Your task to perform on an android device: allow notifications from all sites in the chrome app Image 0: 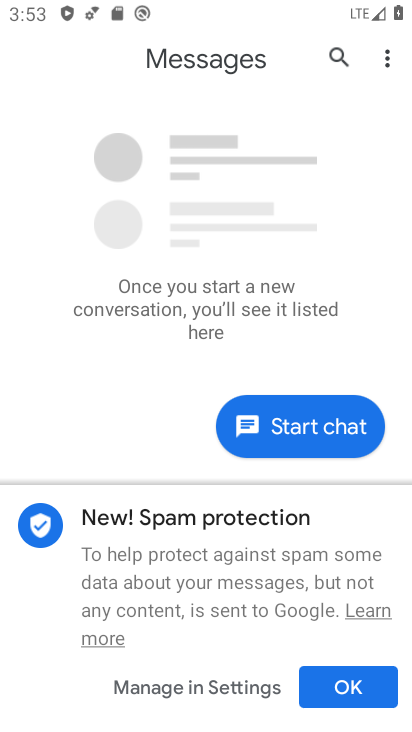
Step 0: press home button
Your task to perform on an android device: allow notifications from all sites in the chrome app Image 1: 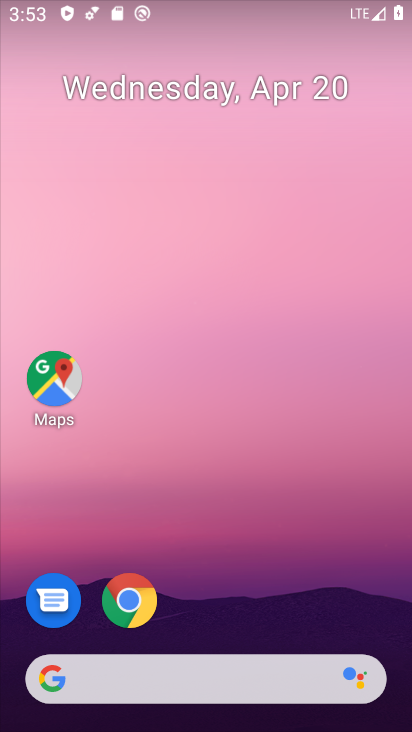
Step 1: click (115, 592)
Your task to perform on an android device: allow notifications from all sites in the chrome app Image 2: 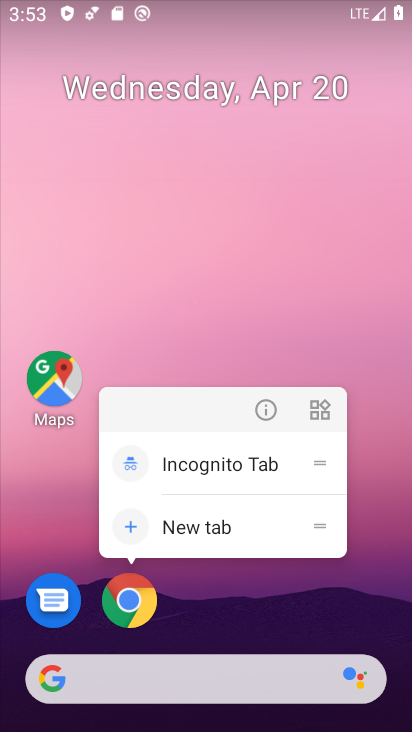
Step 2: click (140, 607)
Your task to perform on an android device: allow notifications from all sites in the chrome app Image 3: 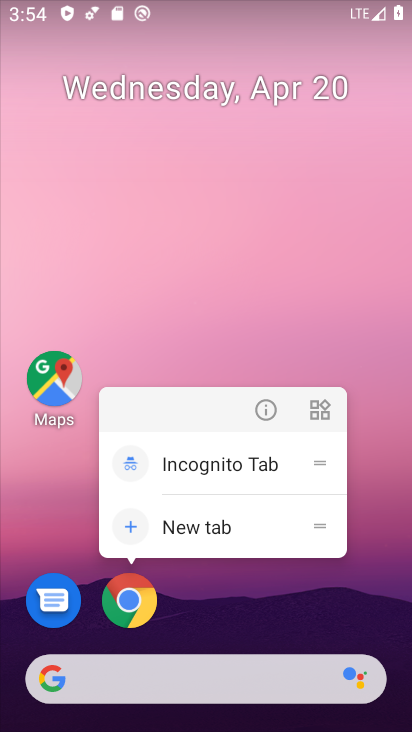
Step 3: click (118, 602)
Your task to perform on an android device: allow notifications from all sites in the chrome app Image 4: 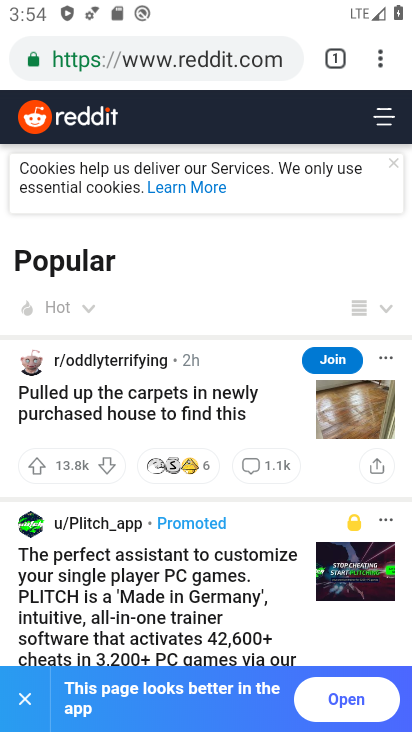
Step 4: drag from (386, 57) to (199, 615)
Your task to perform on an android device: allow notifications from all sites in the chrome app Image 5: 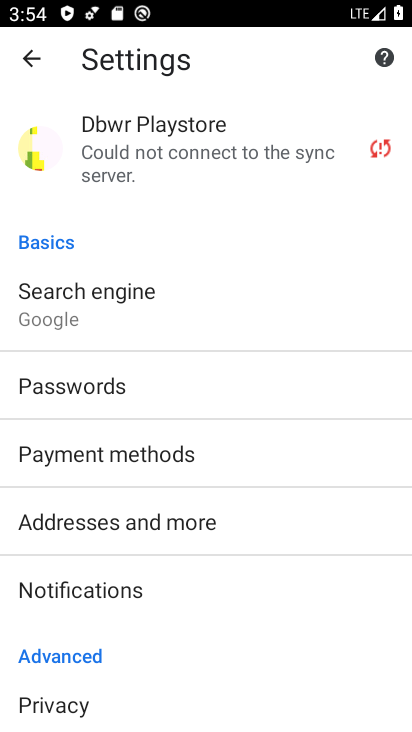
Step 5: click (113, 600)
Your task to perform on an android device: allow notifications from all sites in the chrome app Image 6: 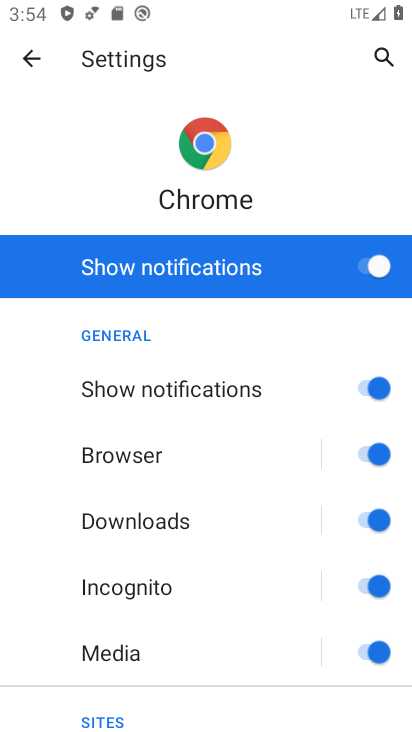
Step 6: drag from (140, 576) to (186, 152)
Your task to perform on an android device: allow notifications from all sites in the chrome app Image 7: 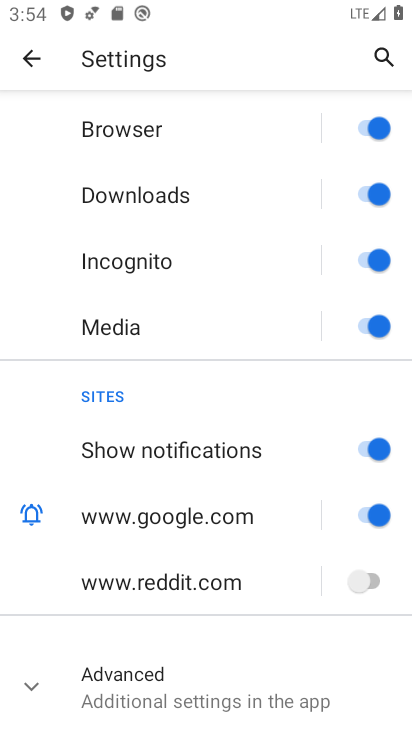
Step 7: click (371, 582)
Your task to perform on an android device: allow notifications from all sites in the chrome app Image 8: 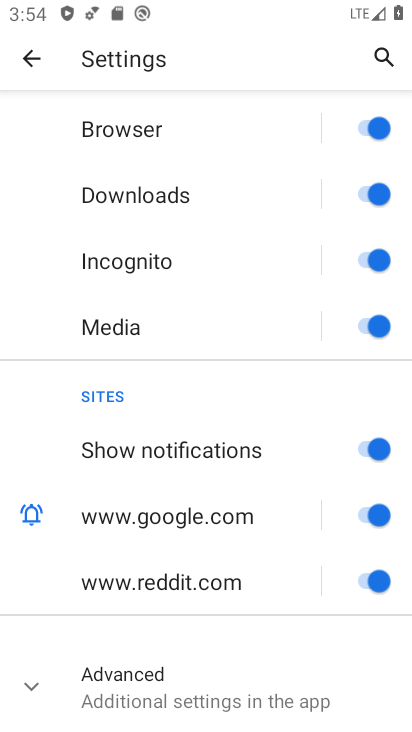
Step 8: task complete